Your task to perform on an android device: Go to privacy settings Image 0: 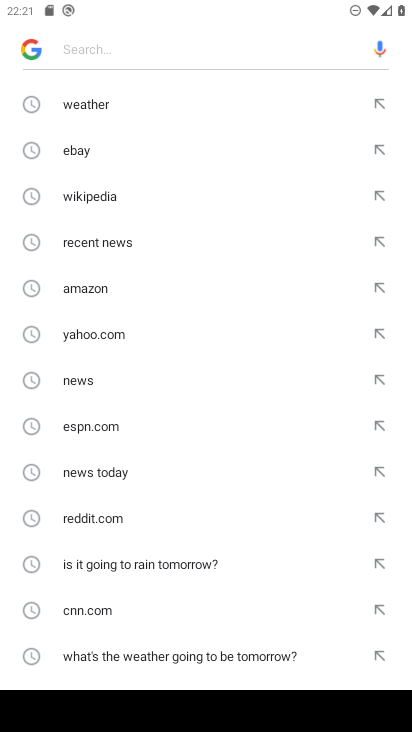
Step 0: press home button
Your task to perform on an android device: Go to privacy settings Image 1: 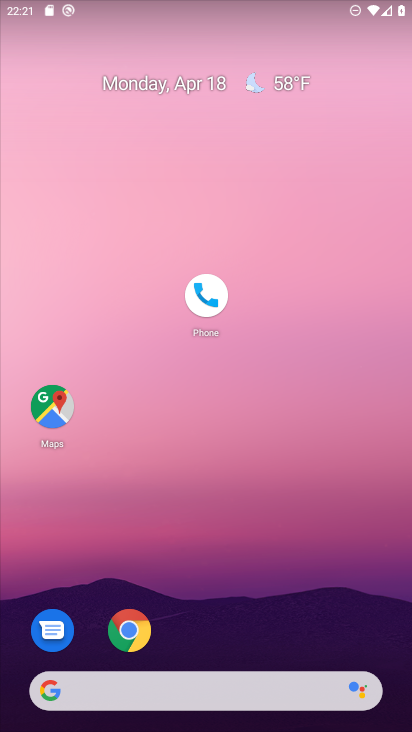
Step 1: drag from (299, 604) to (280, 95)
Your task to perform on an android device: Go to privacy settings Image 2: 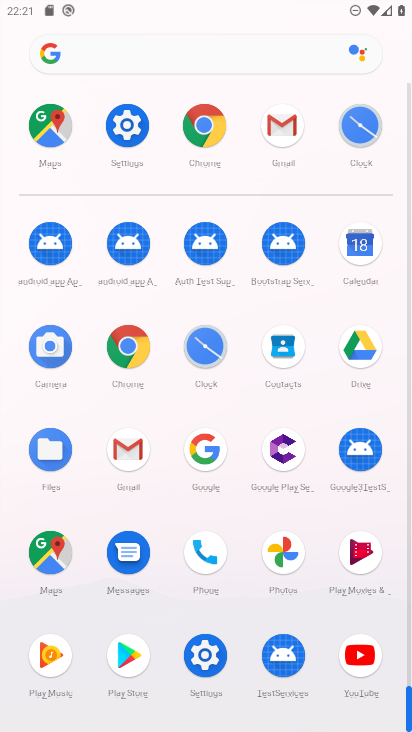
Step 2: click (123, 132)
Your task to perform on an android device: Go to privacy settings Image 3: 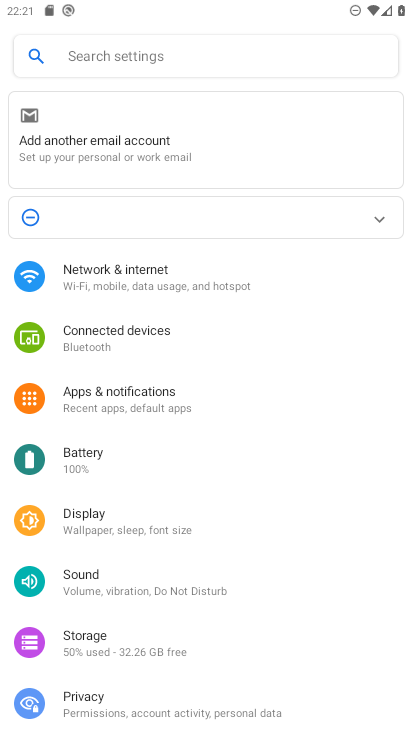
Step 3: drag from (178, 647) to (177, 292)
Your task to perform on an android device: Go to privacy settings Image 4: 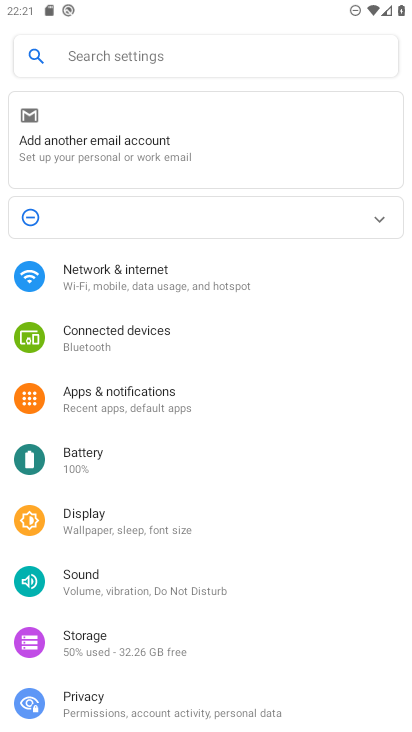
Step 4: click (131, 704)
Your task to perform on an android device: Go to privacy settings Image 5: 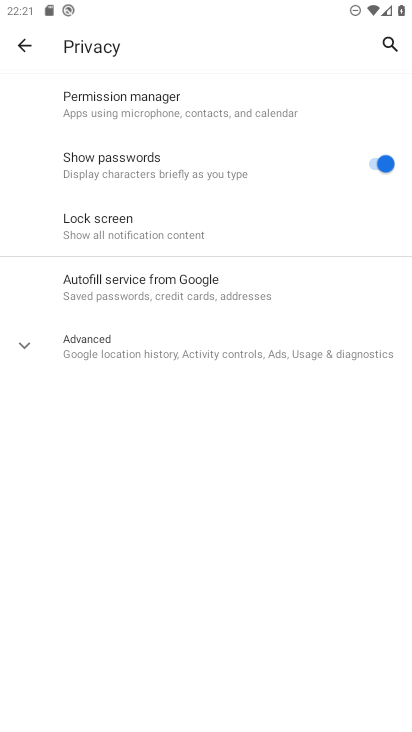
Step 5: task complete